Your task to perform on an android device: turn smart compose on in the gmail app Image 0: 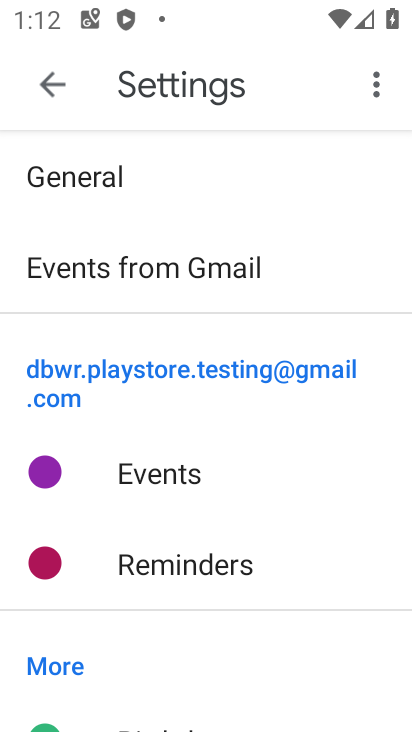
Step 0: press home button
Your task to perform on an android device: turn smart compose on in the gmail app Image 1: 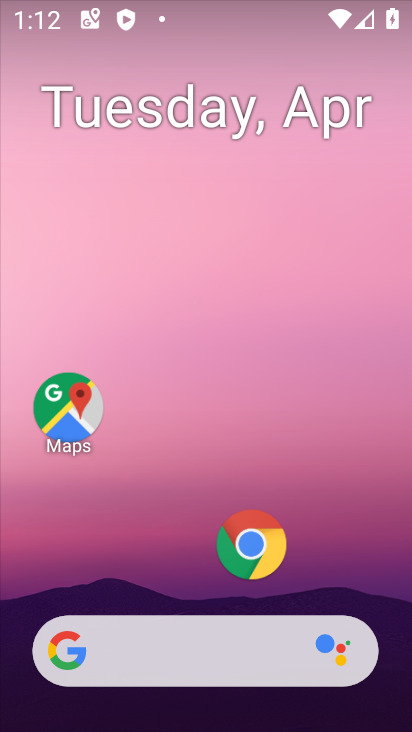
Step 1: drag from (185, 556) to (213, 210)
Your task to perform on an android device: turn smart compose on in the gmail app Image 2: 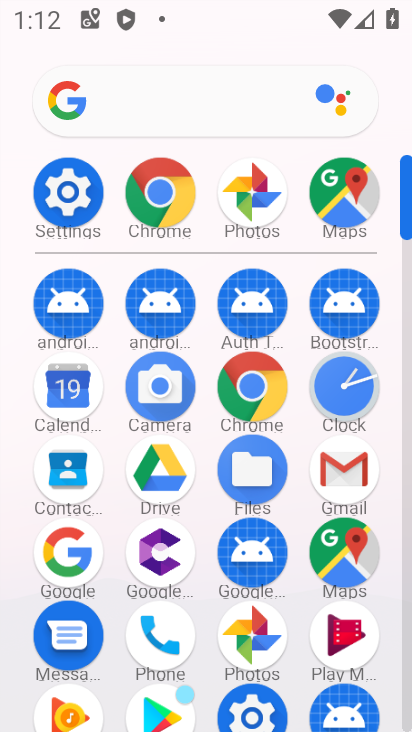
Step 2: click (342, 456)
Your task to perform on an android device: turn smart compose on in the gmail app Image 3: 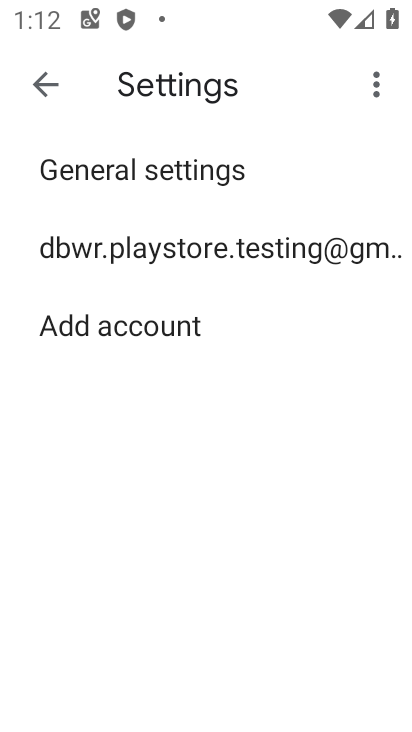
Step 3: click (137, 241)
Your task to perform on an android device: turn smart compose on in the gmail app Image 4: 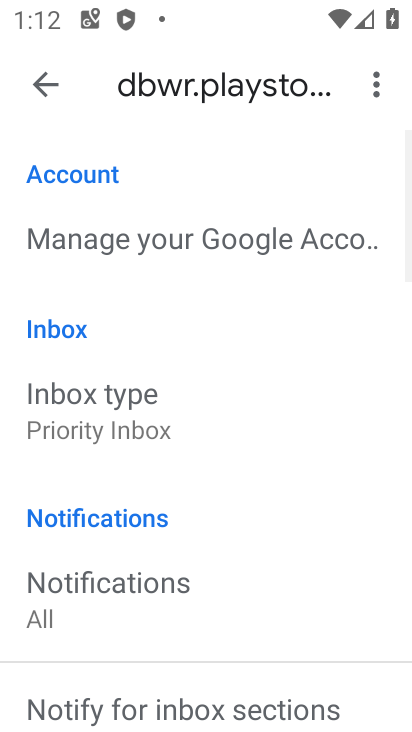
Step 4: task complete